Your task to perform on an android device: check battery use Image 0: 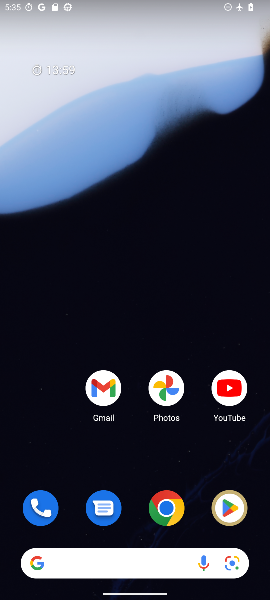
Step 0: drag from (134, 533) to (156, 223)
Your task to perform on an android device: check battery use Image 1: 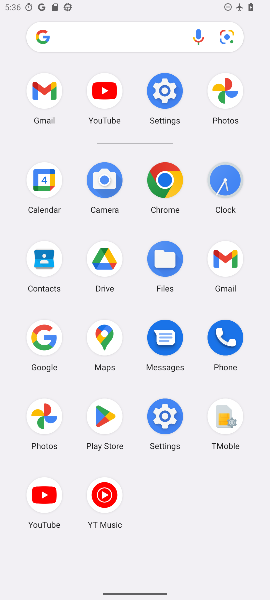
Step 1: click (169, 412)
Your task to perform on an android device: check battery use Image 2: 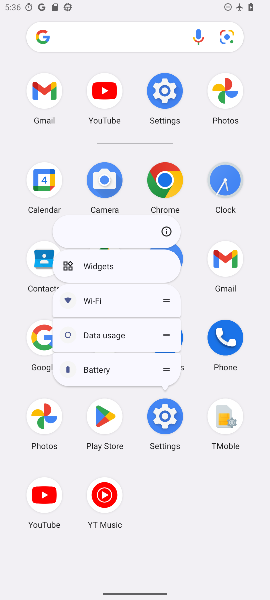
Step 2: click (170, 226)
Your task to perform on an android device: check battery use Image 3: 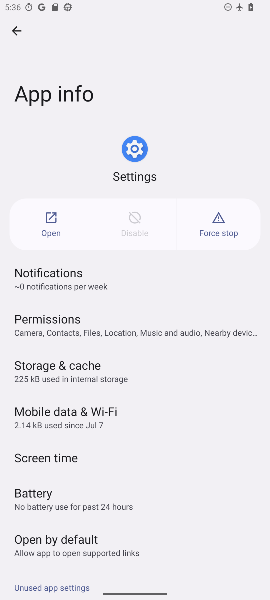
Step 3: click (59, 224)
Your task to perform on an android device: check battery use Image 4: 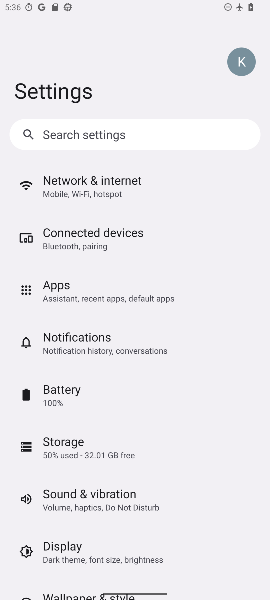
Step 4: click (78, 382)
Your task to perform on an android device: check battery use Image 5: 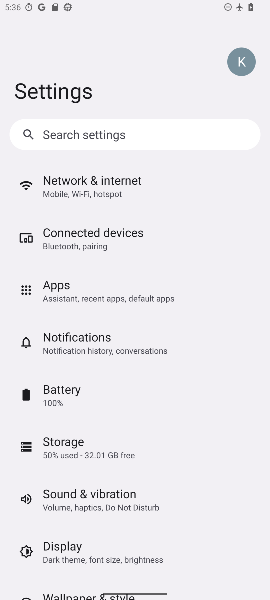
Step 5: click (77, 382)
Your task to perform on an android device: check battery use Image 6: 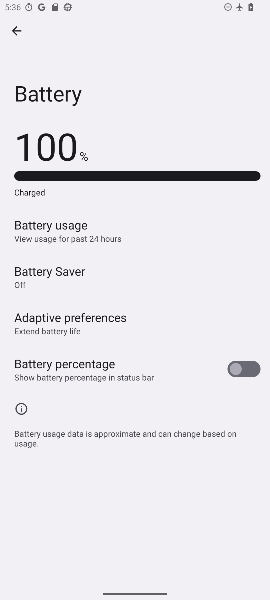
Step 6: drag from (245, 572) to (269, 162)
Your task to perform on an android device: check battery use Image 7: 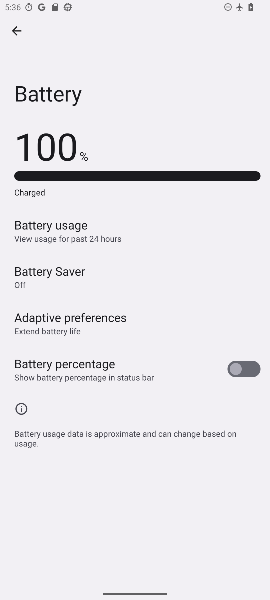
Step 7: drag from (178, 163) to (178, 409)
Your task to perform on an android device: check battery use Image 8: 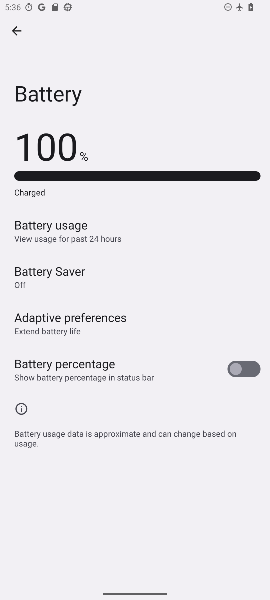
Step 8: click (131, 232)
Your task to perform on an android device: check battery use Image 9: 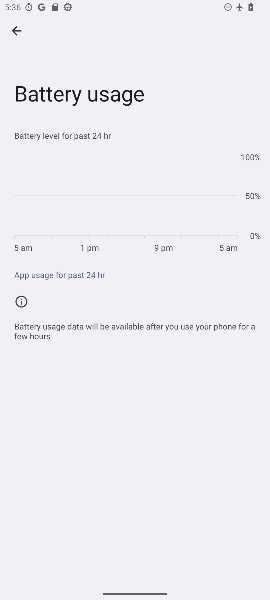
Step 9: task complete